Your task to perform on an android device: Go to wifi settings Image 0: 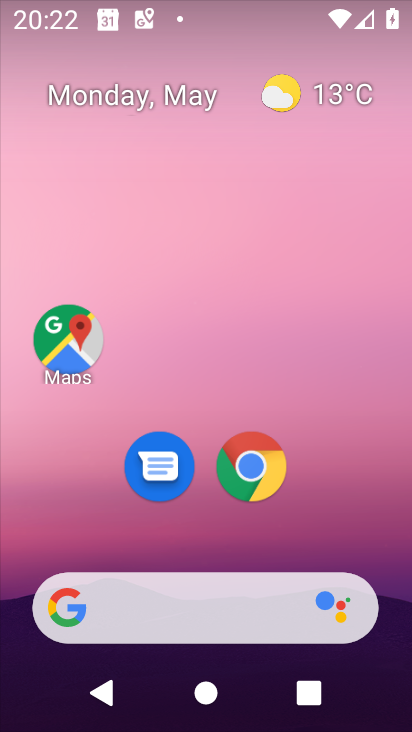
Step 0: drag from (322, 552) to (312, 233)
Your task to perform on an android device: Go to wifi settings Image 1: 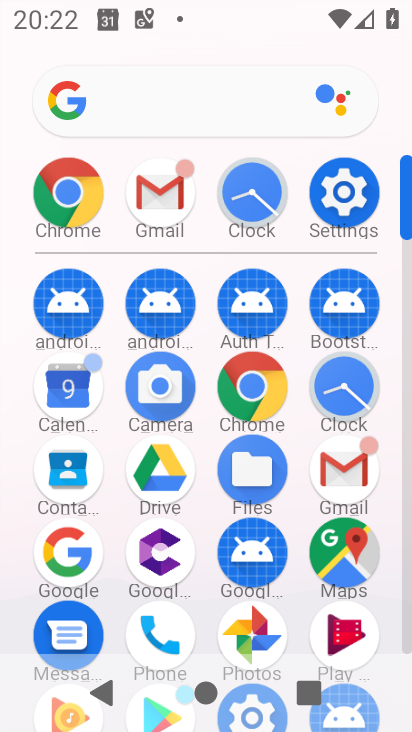
Step 1: click (339, 182)
Your task to perform on an android device: Go to wifi settings Image 2: 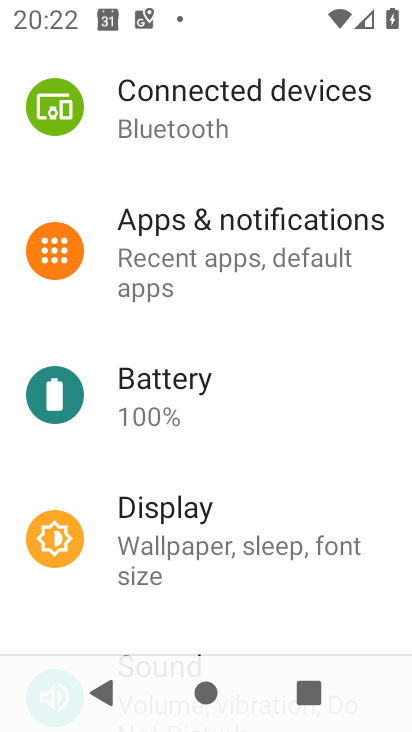
Step 2: drag from (255, 152) to (249, 464)
Your task to perform on an android device: Go to wifi settings Image 3: 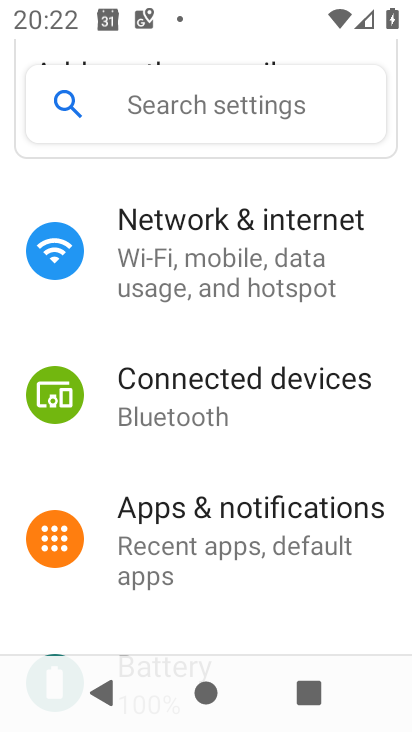
Step 3: click (160, 252)
Your task to perform on an android device: Go to wifi settings Image 4: 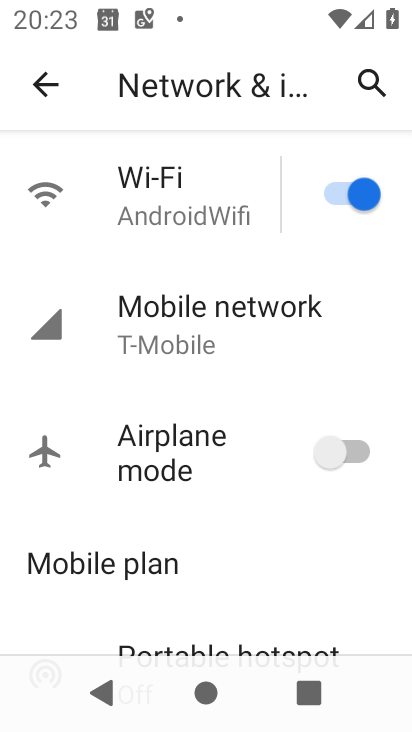
Step 4: task complete